Your task to perform on an android device: open device folders in google photos Image 0: 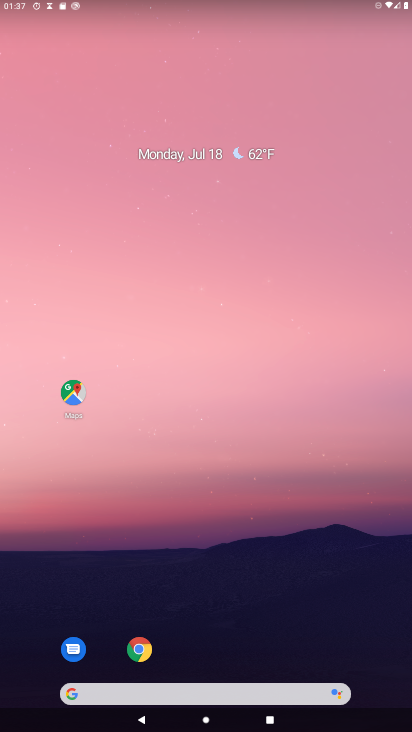
Step 0: drag from (75, 558) to (410, 13)
Your task to perform on an android device: open device folders in google photos Image 1: 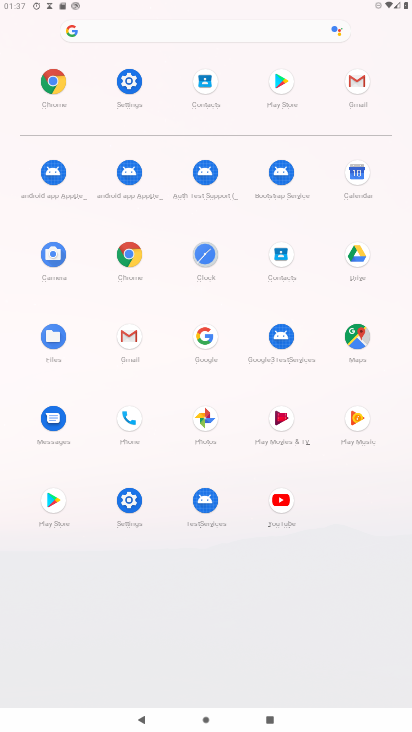
Step 1: click (208, 522)
Your task to perform on an android device: open device folders in google photos Image 2: 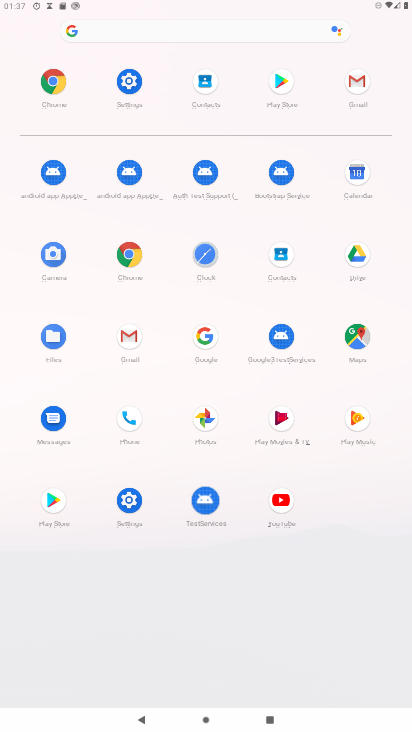
Step 2: click (206, 416)
Your task to perform on an android device: open device folders in google photos Image 3: 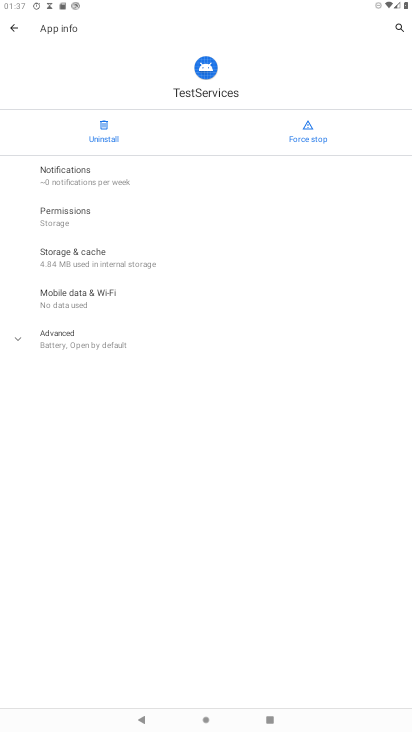
Step 3: click (12, 31)
Your task to perform on an android device: open device folders in google photos Image 4: 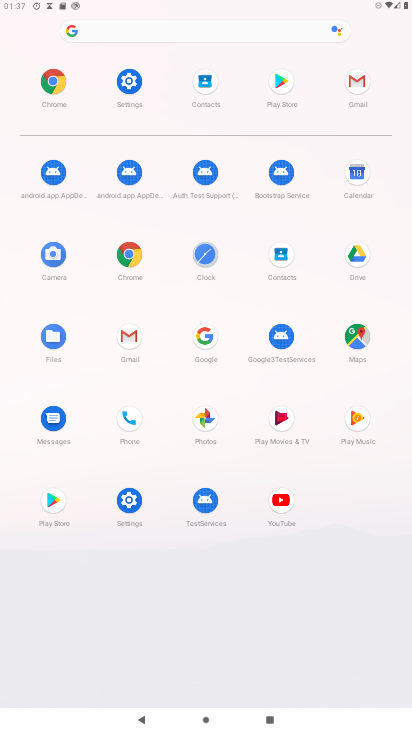
Step 4: click (201, 413)
Your task to perform on an android device: open device folders in google photos Image 5: 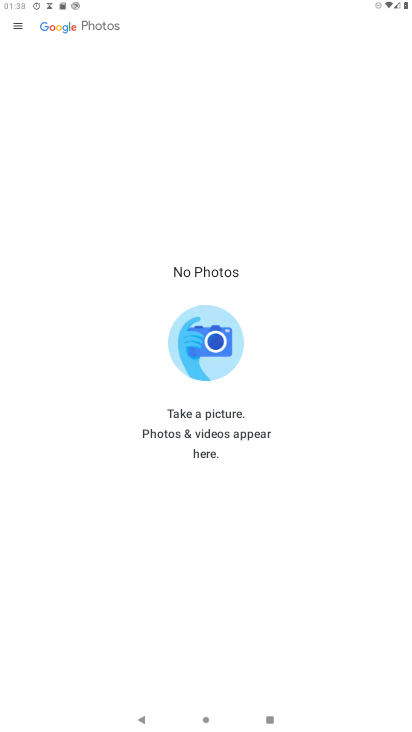
Step 5: task complete